Your task to perform on an android device: find which apps use the phone's location Image 0: 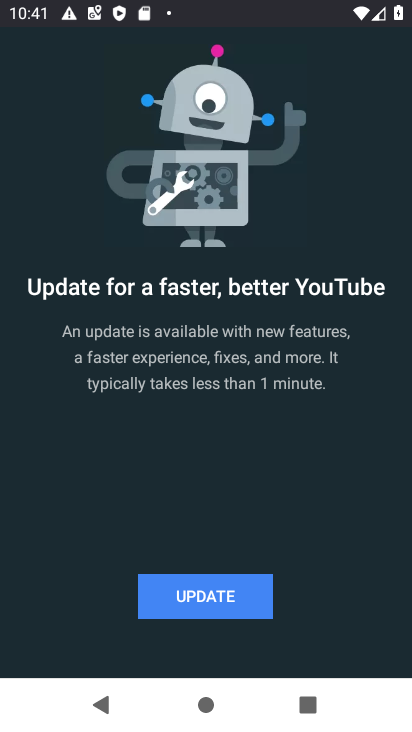
Step 0: press home button
Your task to perform on an android device: find which apps use the phone's location Image 1: 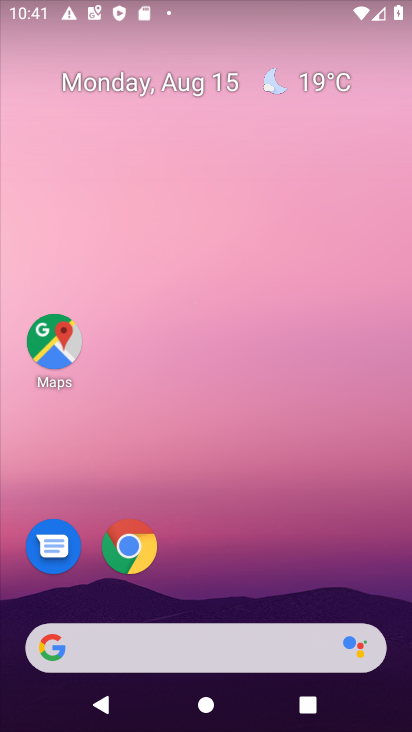
Step 1: drag from (236, 592) to (227, 63)
Your task to perform on an android device: find which apps use the phone's location Image 2: 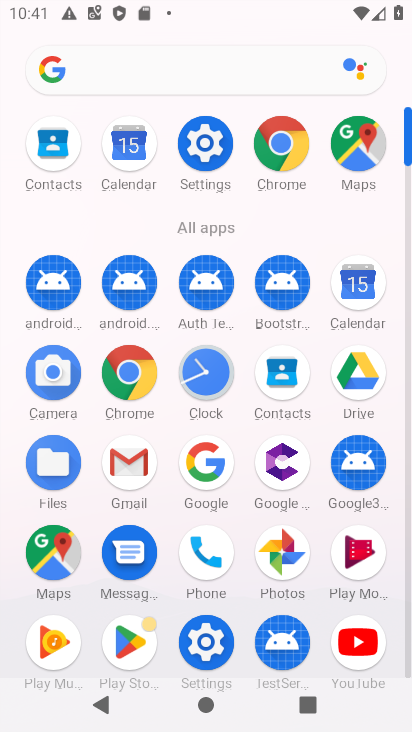
Step 2: click (197, 644)
Your task to perform on an android device: find which apps use the phone's location Image 3: 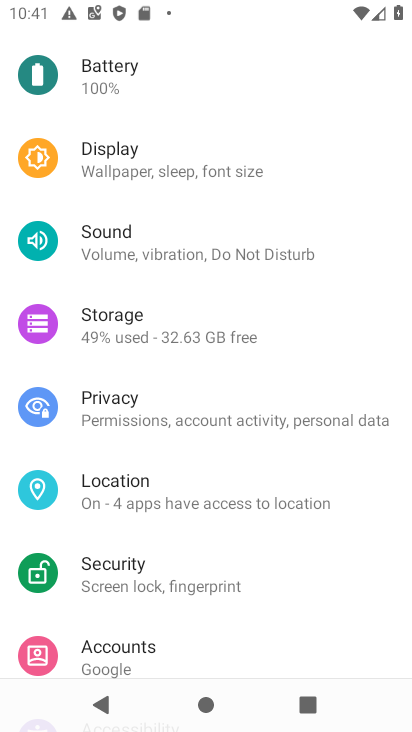
Step 3: drag from (172, 605) to (179, 427)
Your task to perform on an android device: find which apps use the phone's location Image 4: 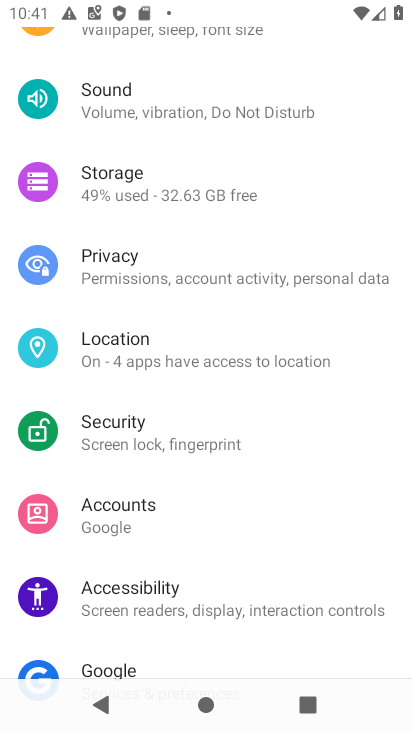
Step 4: drag from (184, 177) to (194, 508)
Your task to perform on an android device: find which apps use the phone's location Image 5: 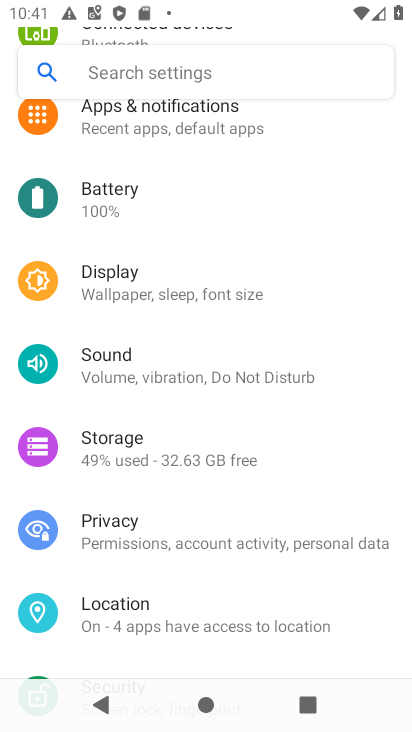
Step 5: drag from (169, 151) to (202, 616)
Your task to perform on an android device: find which apps use the phone's location Image 6: 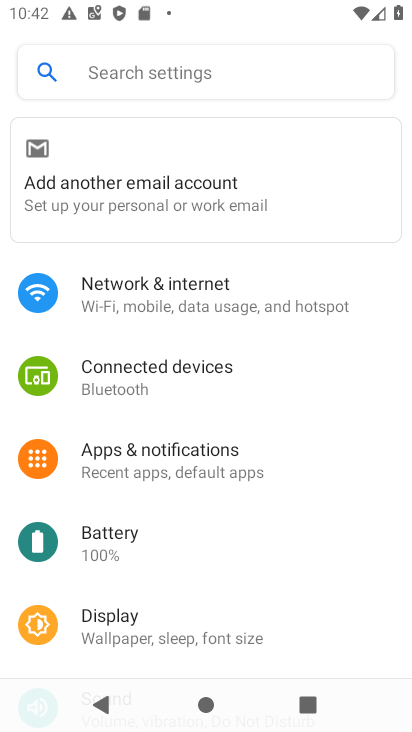
Step 6: drag from (141, 649) to (134, 311)
Your task to perform on an android device: find which apps use the phone's location Image 7: 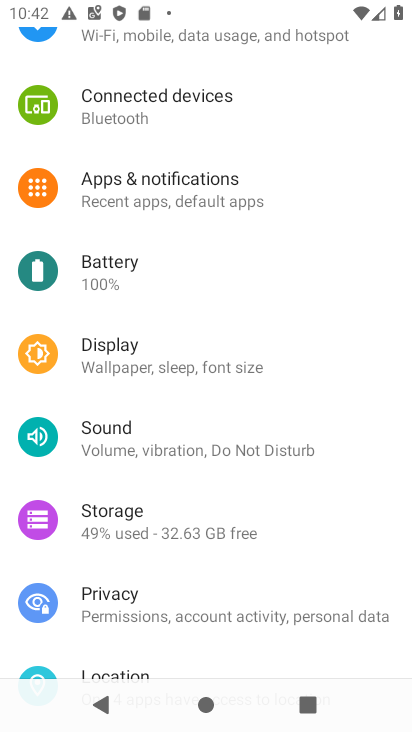
Step 7: drag from (155, 618) to (156, 313)
Your task to perform on an android device: find which apps use the phone's location Image 8: 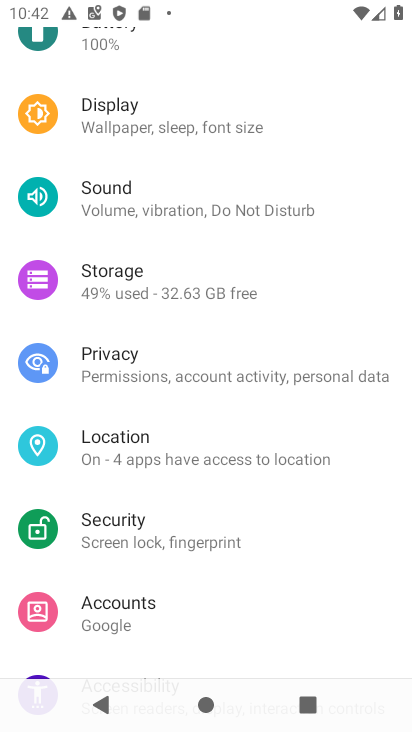
Step 8: click (123, 443)
Your task to perform on an android device: find which apps use the phone's location Image 9: 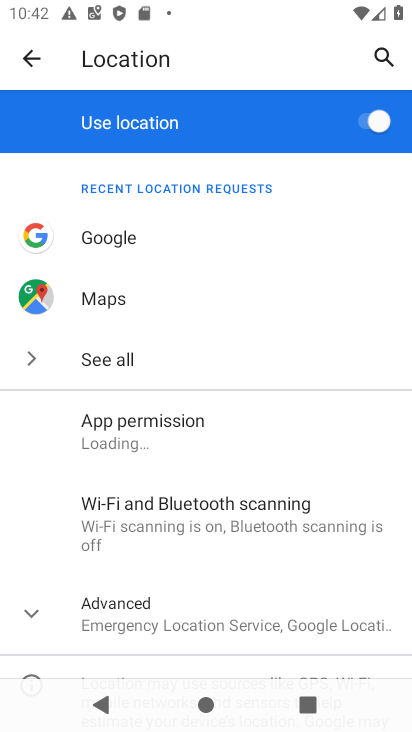
Step 9: click (130, 430)
Your task to perform on an android device: find which apps use the phone's location Image 10: 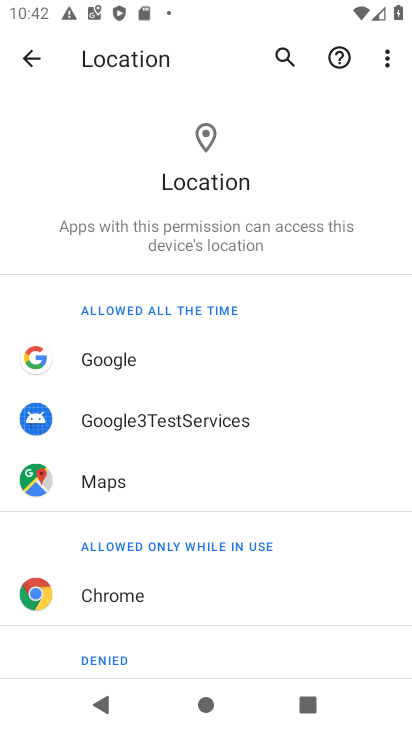
Step 10: task complete